Your task to perform on an android device: Open the phone app and click the voicemail tab. Image 0: 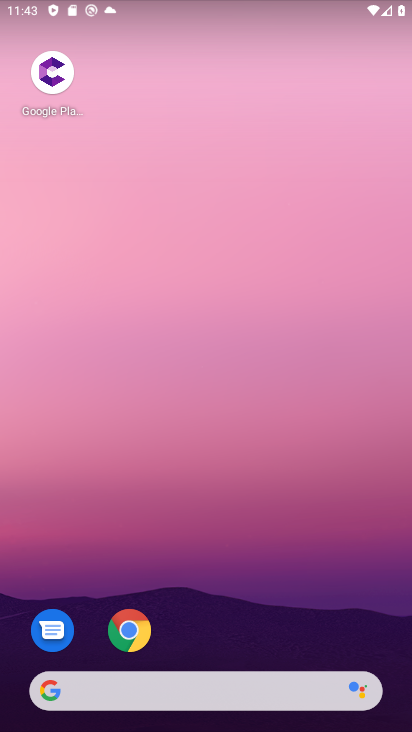
Step 0: drag from (223, 725) to (228, 165)
Your task to perform on an android device: Open the phone app and click the voicemail tab. Image 1: 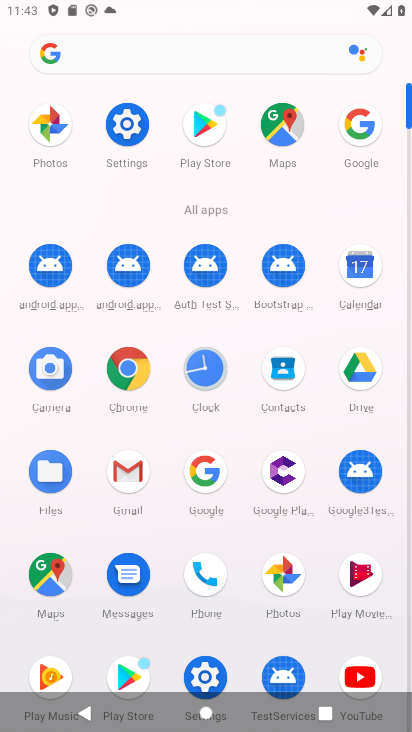
Step 1: click (208, 562)
Your task to perform on an android device: Open the phone app and click the voicemail tab. Image 2: 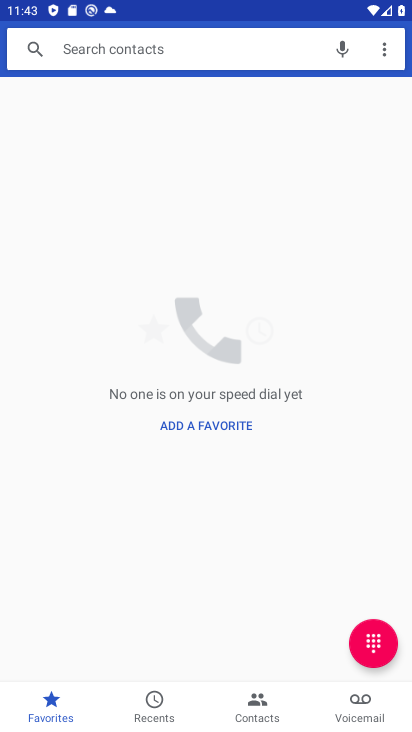
Step 2: click (362, 704)
Your task to perform on an android device: Open the phone app and click the voicemail tab. Image 3: 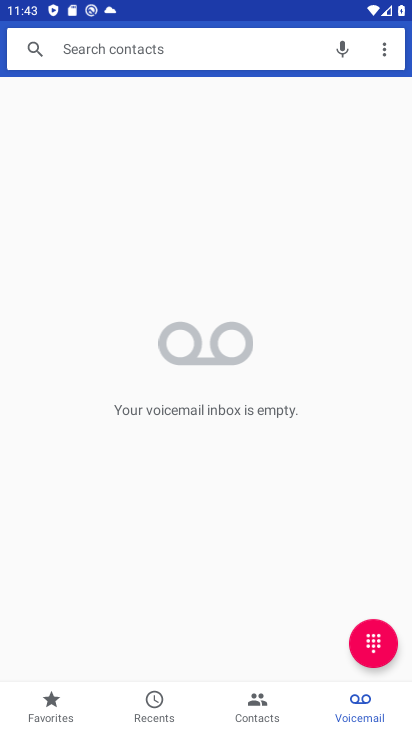
Step 3: task complete